Your task to perform on an android device: Go to Yahoo.com Image 0: 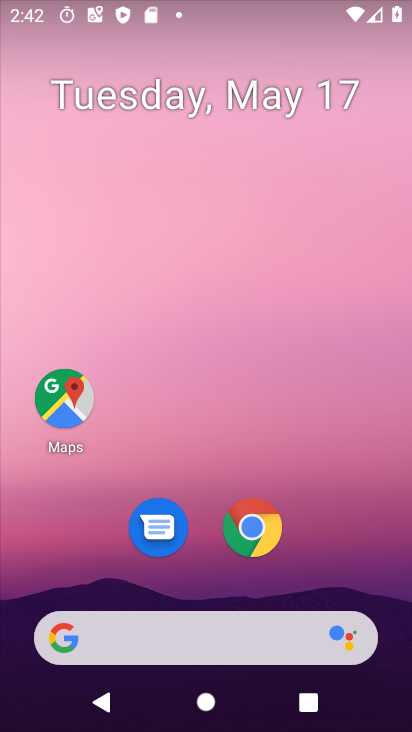
Step 0: press home button
Your task to perform on an android device: Go to Yahoo.com Image 1: 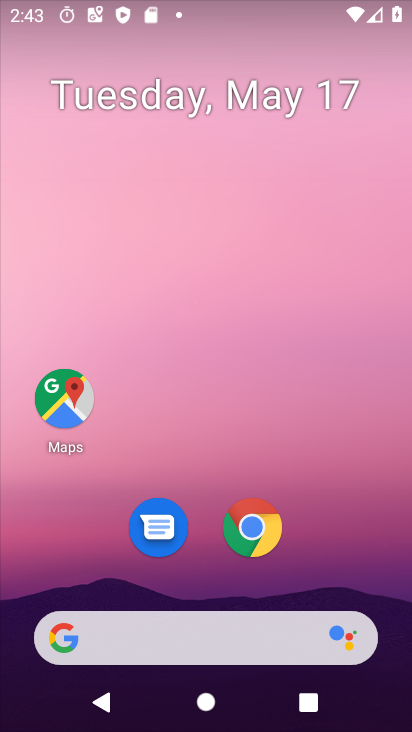
Step 1: drag from (298, 665) to (194, 139)
Your task to perform on an android device: Go to Yahoo.com Image 2: 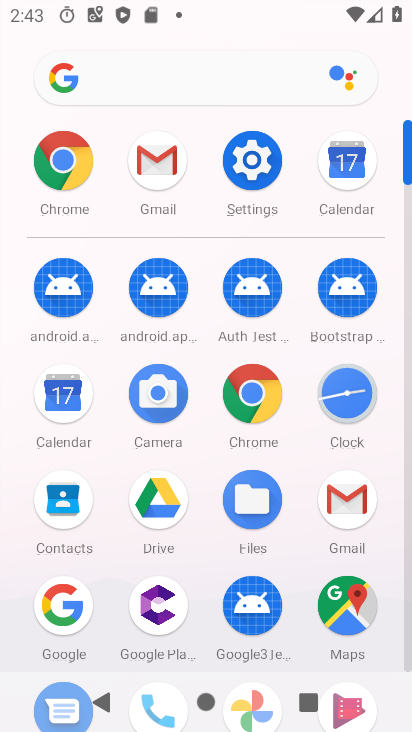
Step 2: click (64, 155)
Your task to perform on an android device: Go to Yahoo.com Image 3: 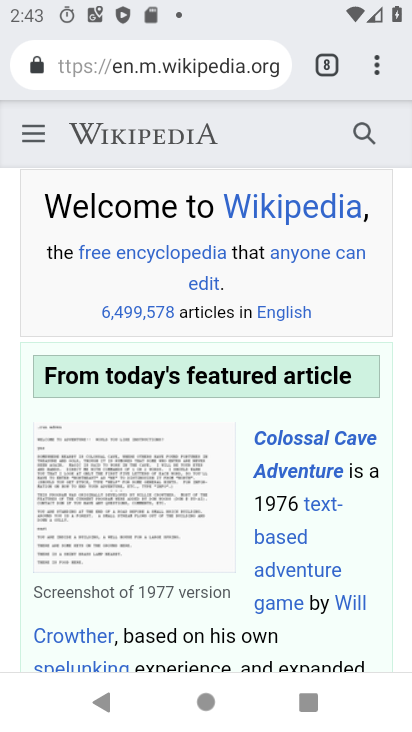
Step 3: click (174, 68)
Your task to perform on an android device: Go to Yahoo.com Image 4: 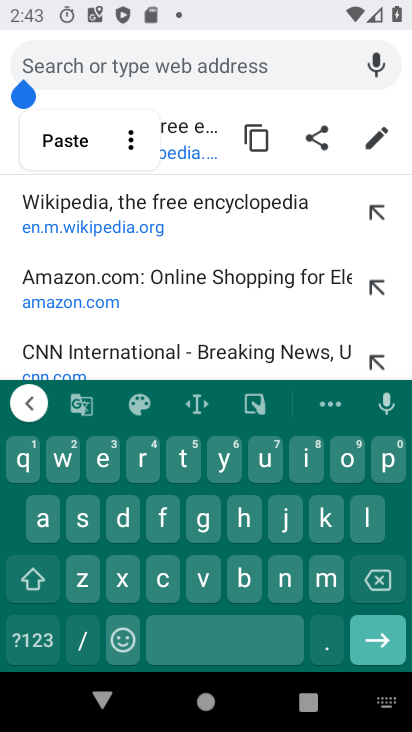
Step 4: click (223, 465)
Your task to perform on an android device: Go to Yahoo.com Image 5: 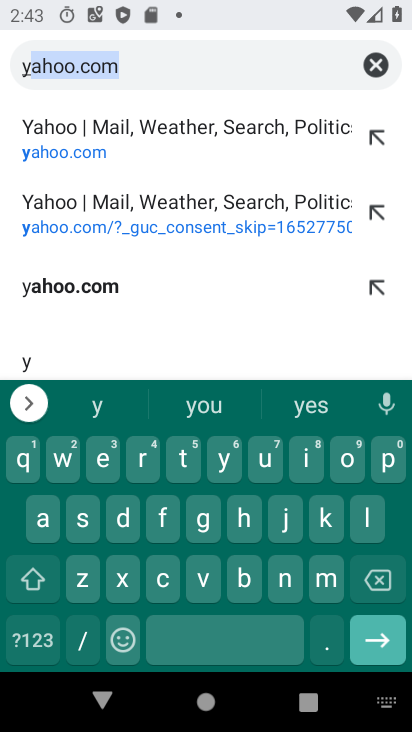
Step 5: click (144, 68)
Your task to perform on an android device: Go to Yahoo.com Image 6: 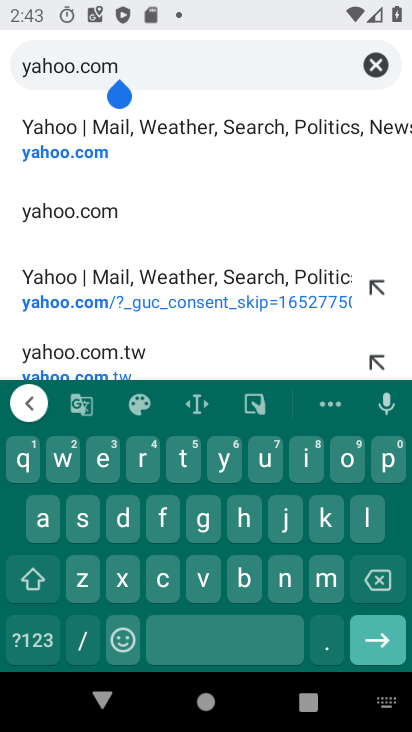
Step 6: click (387, 638)
Your task to perform on an android device: Go to Yahoo.com Image 7: 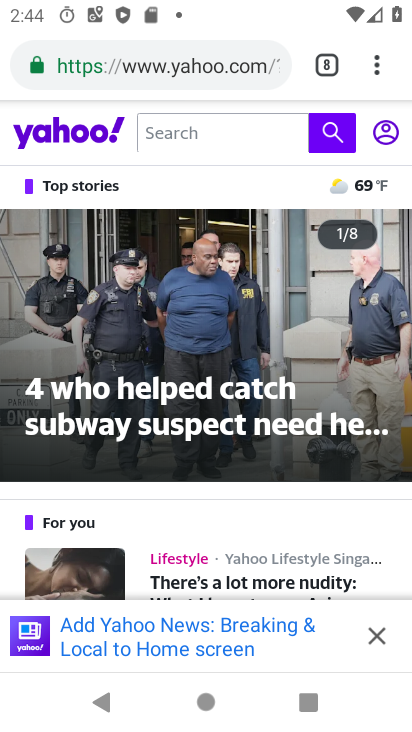
Step 7: task complete